Your task to perform on an android device: Go to eBay Image 0: 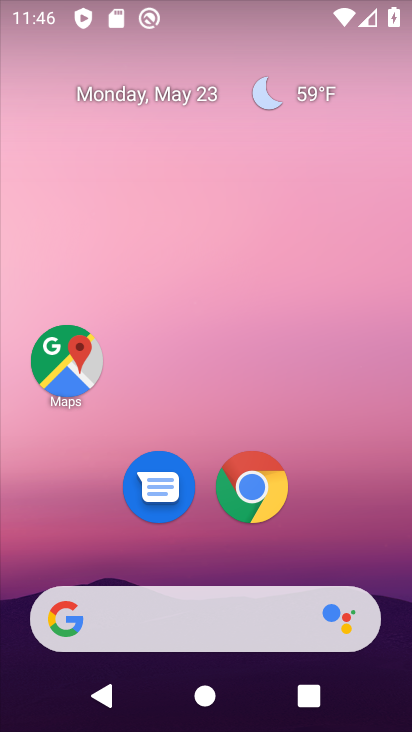
Step 0: click (245, 479)
Your task to perform on an android device: Go to eBay Image 1: 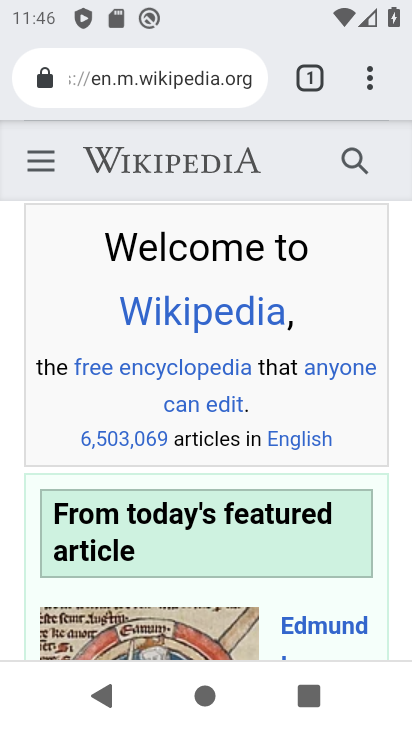
Step 1: click (225, 79)
Your task to perform on an android device: Go to eBay Image 2: 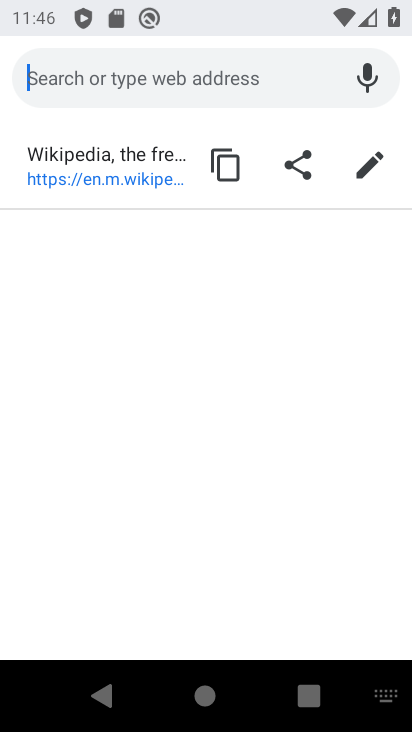
Step 2: type "ebay"
Your task to perform on an android device: Go to eBay Image 3: 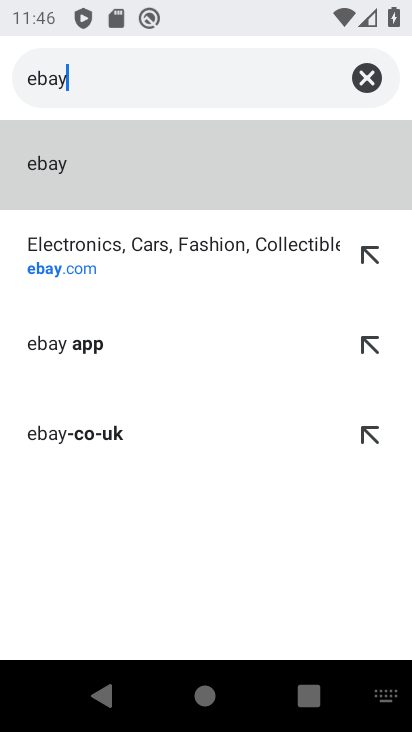
Step 3: click (56, 163)
Your task to perform on an android device: Go to eBay Image 4: 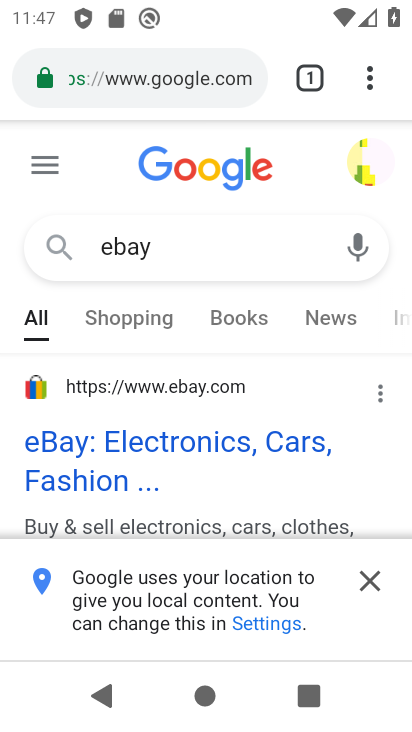
Step 4: click (167, 447)
Your task to perform on an android device: Go to eBay Image 5: 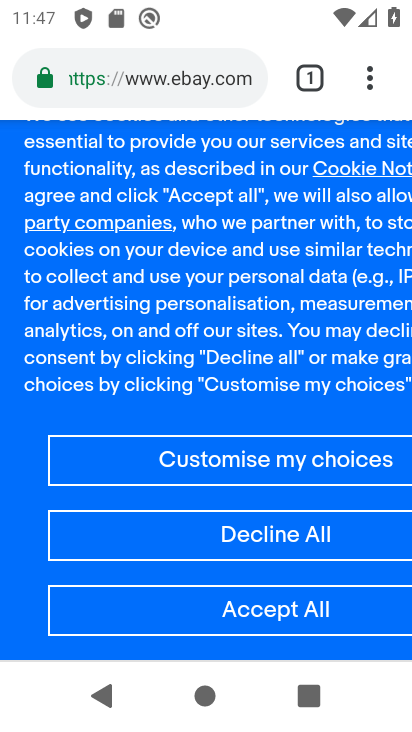
Step 5: task complete